Your task to perform on an android device: toggle priority inbox in the gmail app Image 0: 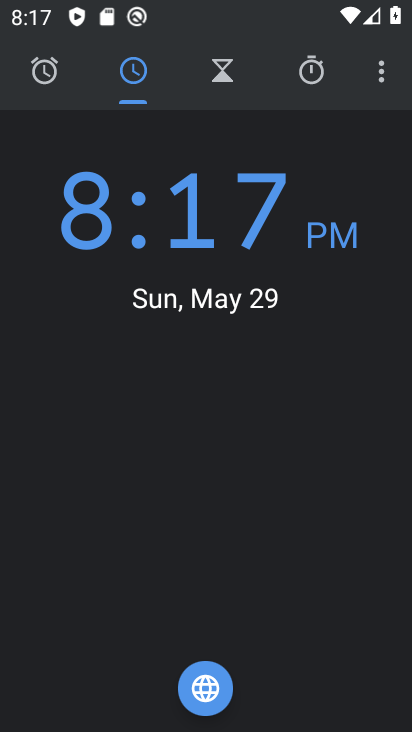
Step 0: press home button
Your task to perform on an android device: toggle priority inbox in the gmail app Image 1: 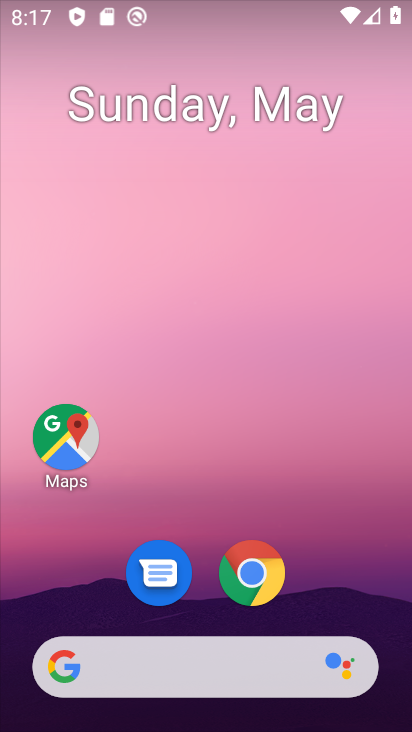
Step 1: drag from (376, 605) to (301, 119)
Your task to perform on an android device: toggle priority inbox in the gmail app Image 2: 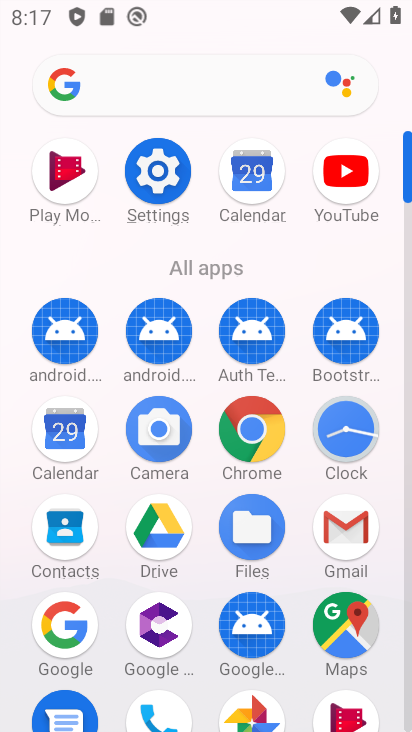
Step 2: click (365, 517)
Your task to perform on an android device: toggle priority inbox in the gmail app Image 3: 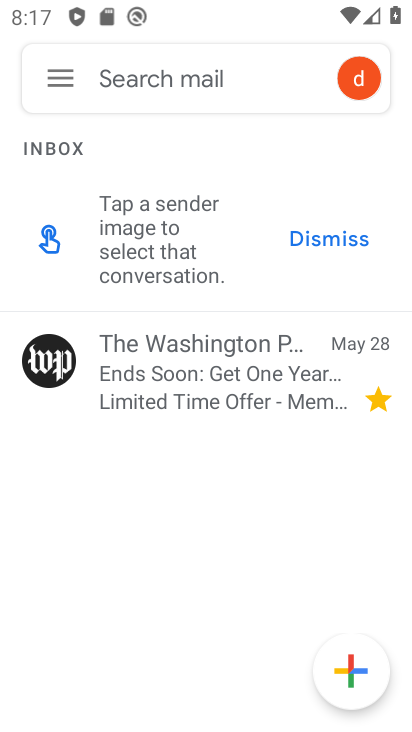
Step 3: click (50, 96)
Your task to perform on an android device: toggle priority inbox in the gmail app Image 4: 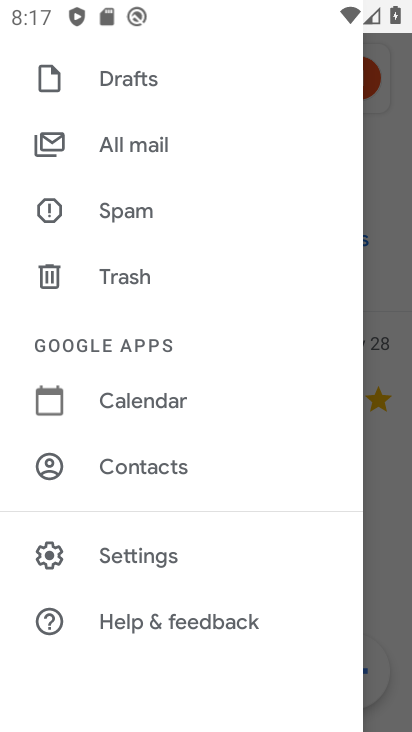
Step 4: click (126, 565)
Your task to perform on an android device: toggle priority inbox in the gmail app Image 5: 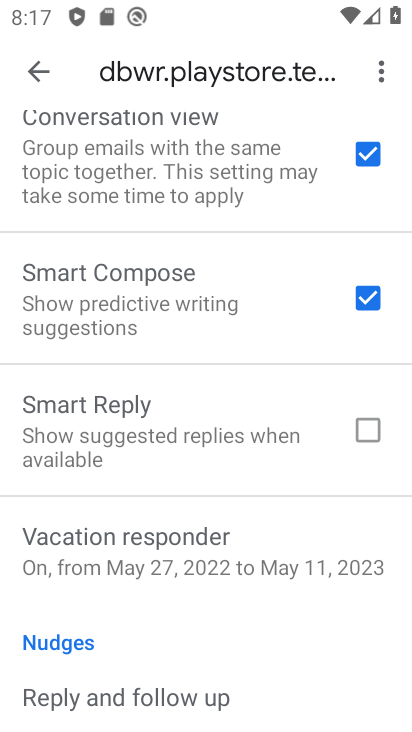
Step 5: drag from (201, 178) to (175, 624)
Your task to perform on an android device: toggle priority inbox in the gmail app Image 6: 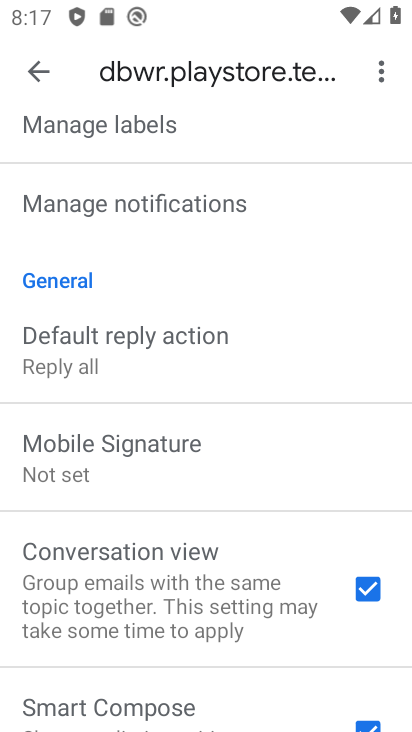
Step 6: drag from (167, 127) to (179, 655)
Your task to perform on an android device: toggle priority inbox in the gmail app Image 7: 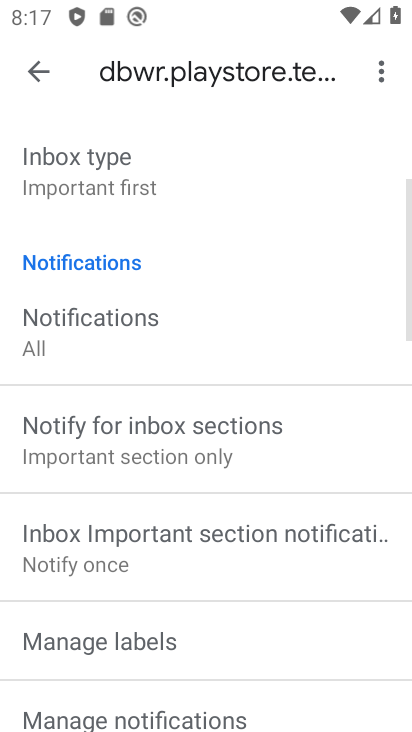
Step 7: drag from (146, 206) to (171, 669)
Your task to perform on an android device: toggle priority inbox in the gmail app Image 8: 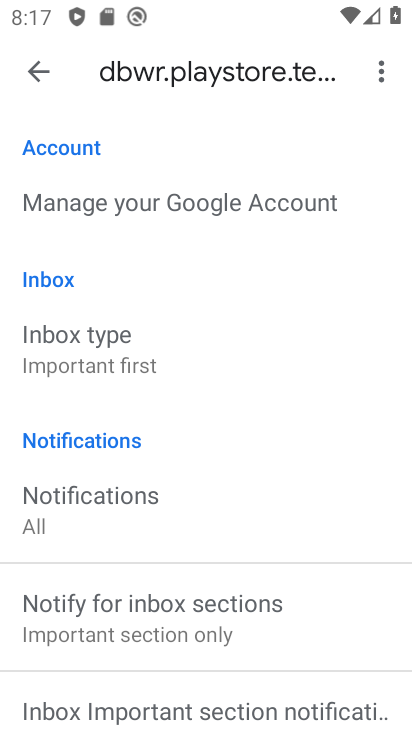
Step 8: click (135, 358)
Your task to perform on an android device: toggle priority inbox in the gmail app Image 9: 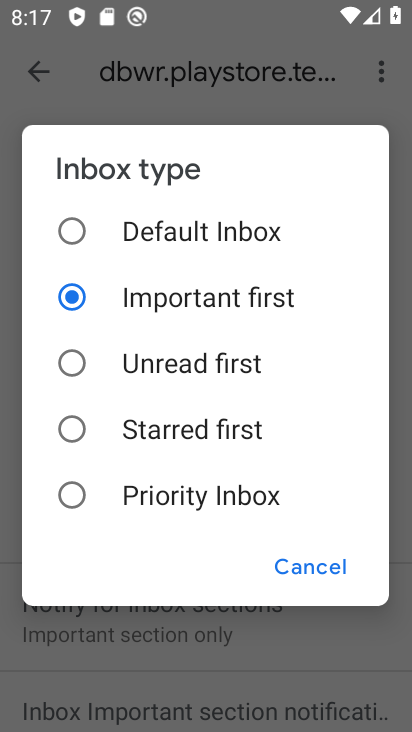
Step 9: click (183, 484)
Your task to perform on an android device: toggle priority inbox in the gmail app Image 10: 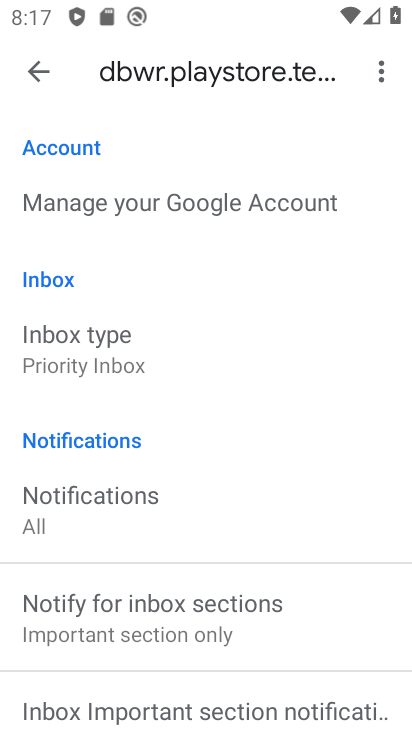
Step 10: task complete